Your task to perform on an android device: Open Chrome and go to settings Image 0: 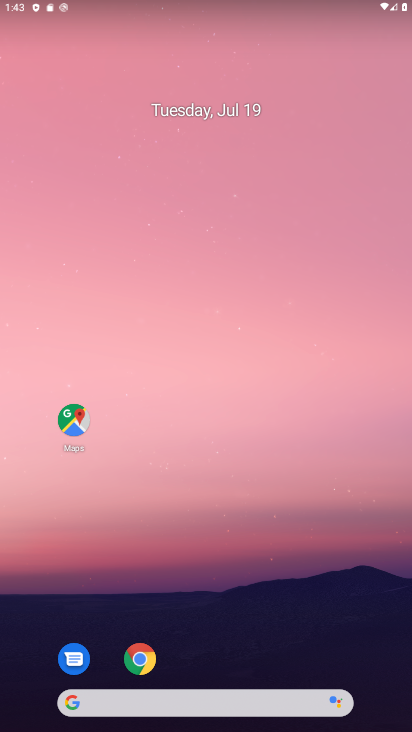
Step 0: drag from (201, 676) to (253, 161)
Your task to perform on an android device: Open Chrome and go to settings Image 1: 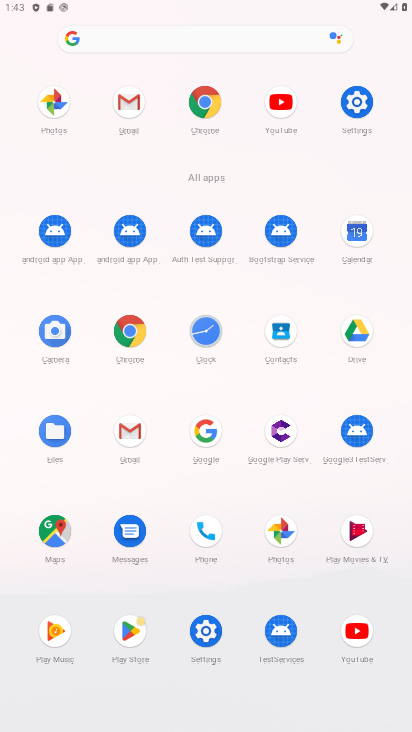
Step 1: click (129, 334)
Your task to perform on an android device: Open Chrome and go to settings Image 2: 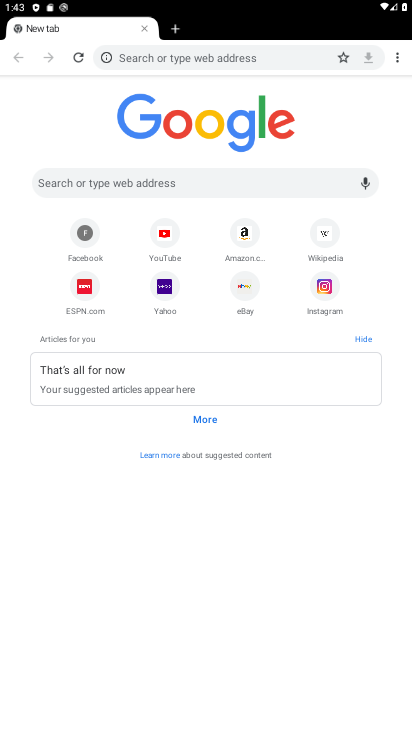
Step 2: click (394, 58)
Your task to perform on an android device: Open Chrome and go to settings Image 3: 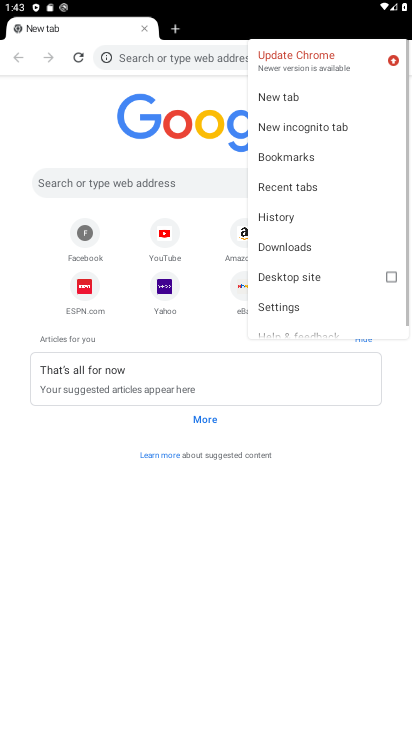
Step 3: click (292, 305)
Your task to perform on an android device: Open Chrome and go to settings Image 4: 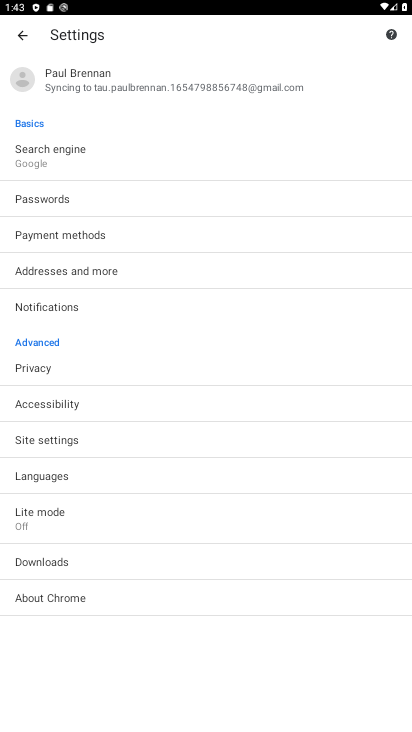
Step 4: task complete